Your task to perform on an android device: Open battery settings Image 0: 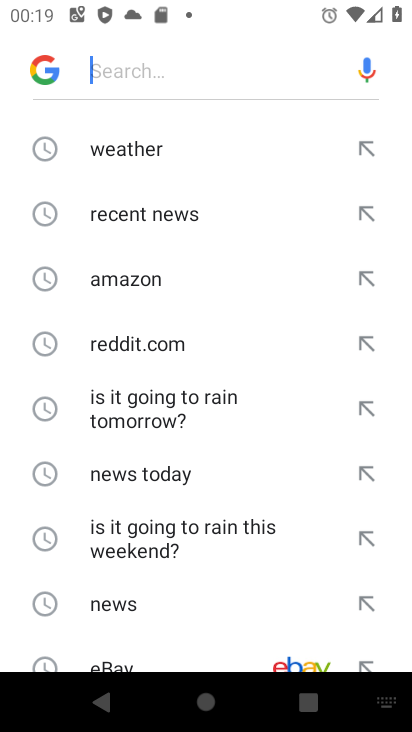
Step 0: press home button
Your task to perform on an android device: Open battery settings Image 1: 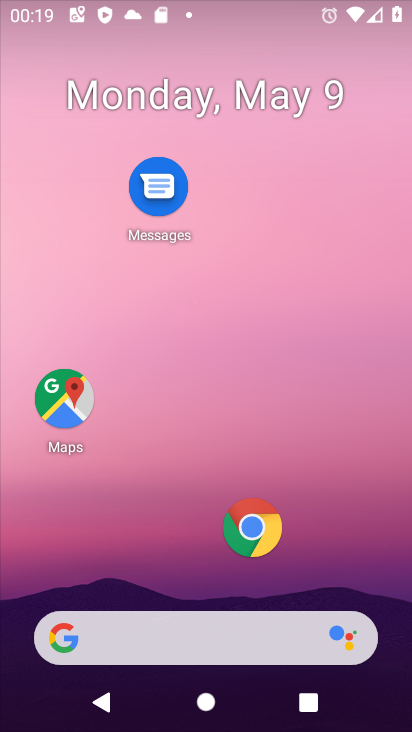
Step 1: drag from (185, 533) to (174, 103)
Your task to perform on an android device: Open battery settings Image 2: 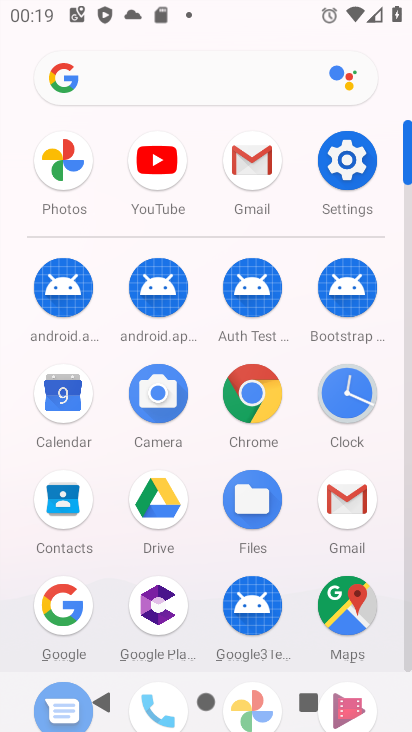
Step 2: click (347, 156)
Your task to perform on an android device: Open battery settings Image 3: 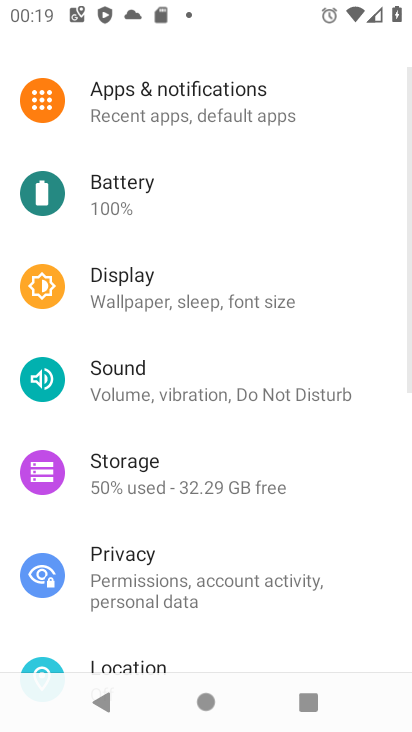
Step 3: click (205, 181)
Your task to perform on an android device: Open battery settings Image 4: 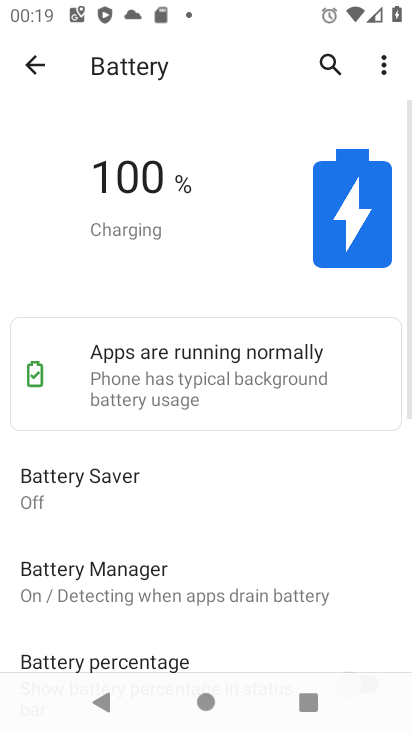
Step 4: click (259, 218)
Your task to perform on an android device: Open battery settings Image 5: 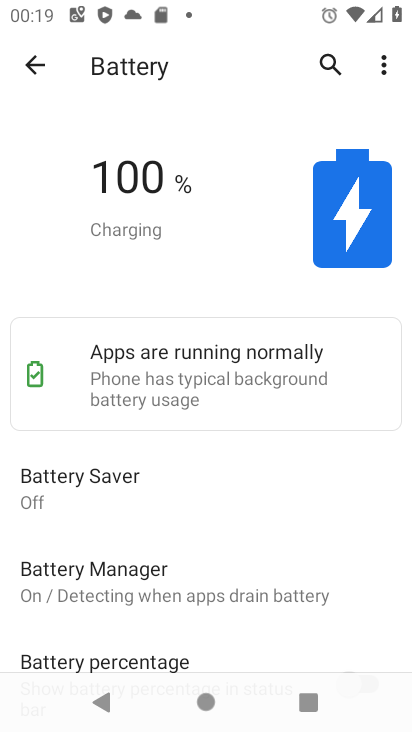
Step 5: click (357, 197)
Your task to perform on an android device: Open battery settings Image 6: 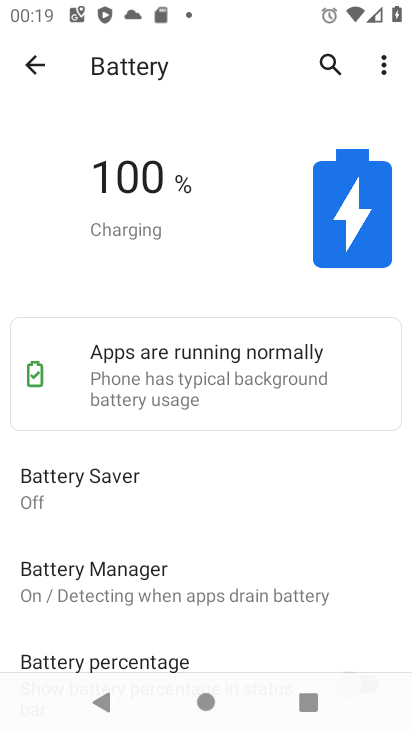
Step 6: task complete